Your task to perform on an android device: Open Chrome and go to the settings page Image 0: 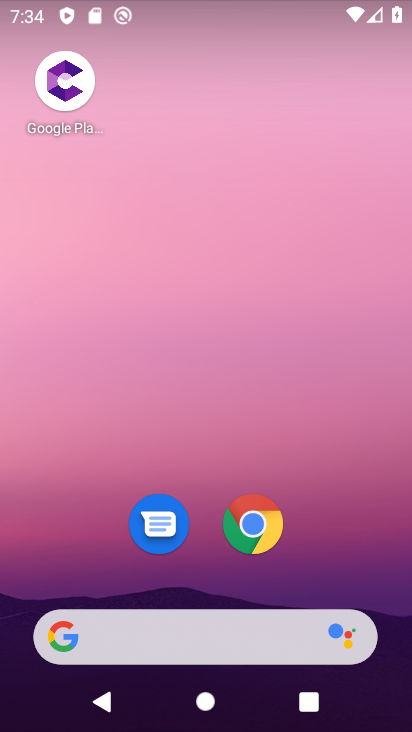
Step 0: click (260, 519)
Your task to perform on an android device: Open Chrome and go to the settings page Image 1: 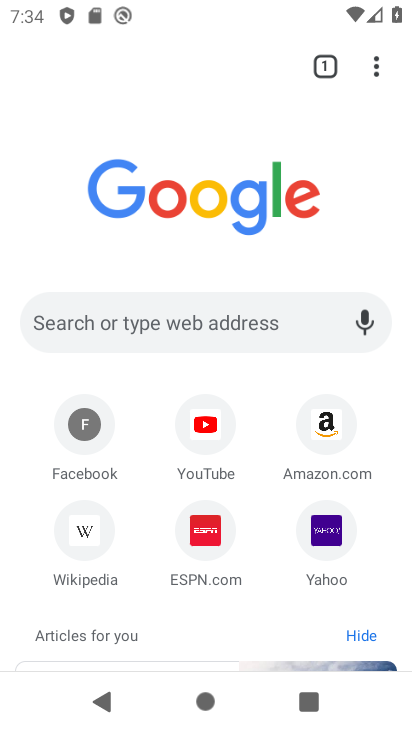
Step 1: click (372, 65)
Your task to perform on an android device: Open Chrome and go to the settings page Image 2: 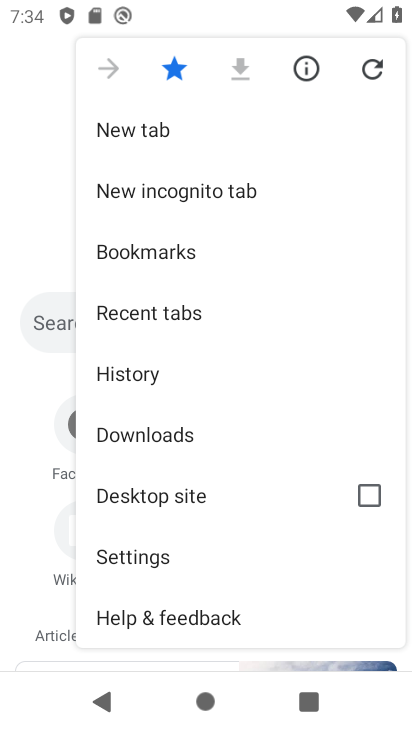
Step 2: click (159, 556)
Your task to perform on an android device: Open Chrome and go to the settings page Image 3: 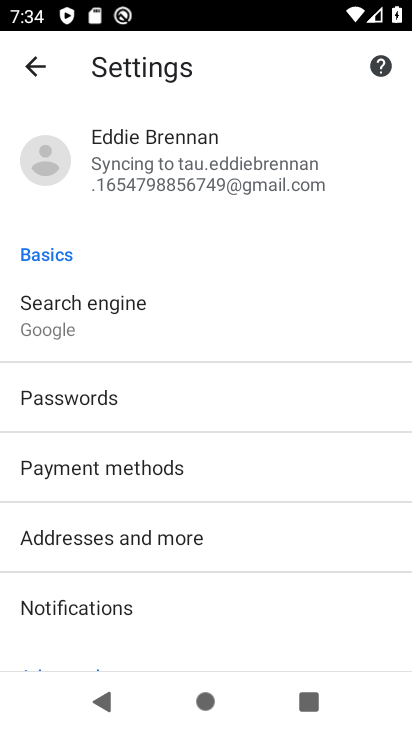
Step 3: task complete